Your task to perform on an android device: turn on improve location accuracy Image 0: 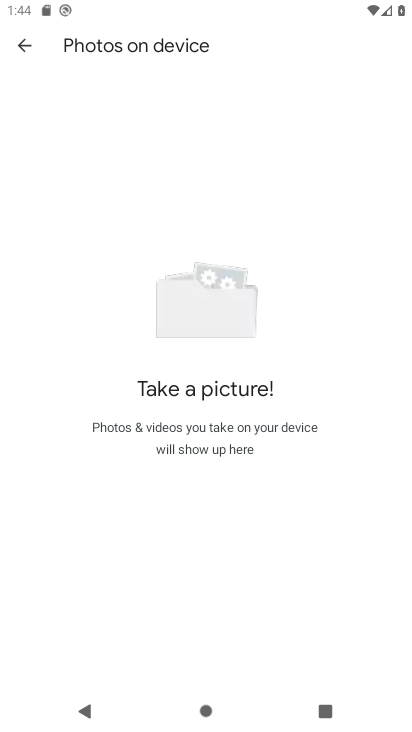
Step 0: press home button
Your task to perform on an android device: turn on improve location accuracy Image 1: 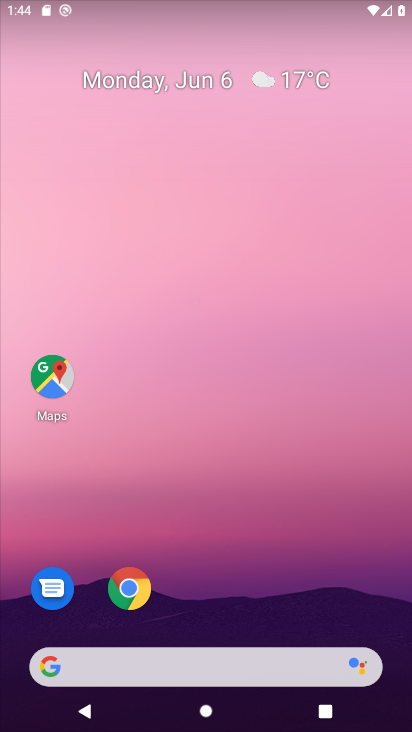
Step 1: drag from (265, 605) to (266, 115)
Your task to perform on an android device: turn on improve location accuracy Image 2: 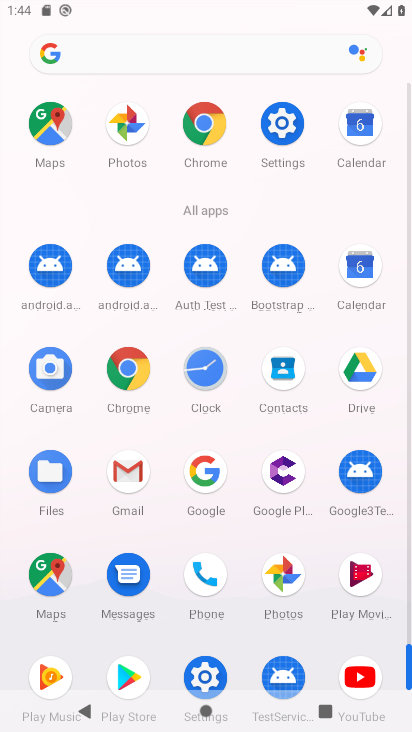
Step 2: click (280, 131)
Your task to perform on an android device: turn on improve location accuracy Image 3: 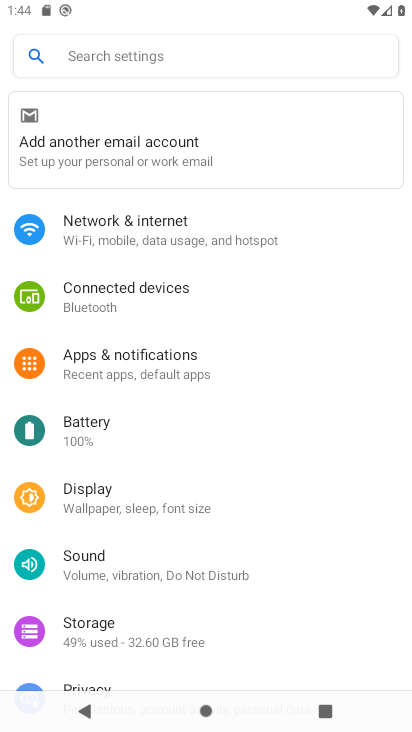
Step 3: drag from (113, 618) to (143, 480)
Your task to perform on an android device: turn on improve location accuracy Image 4: 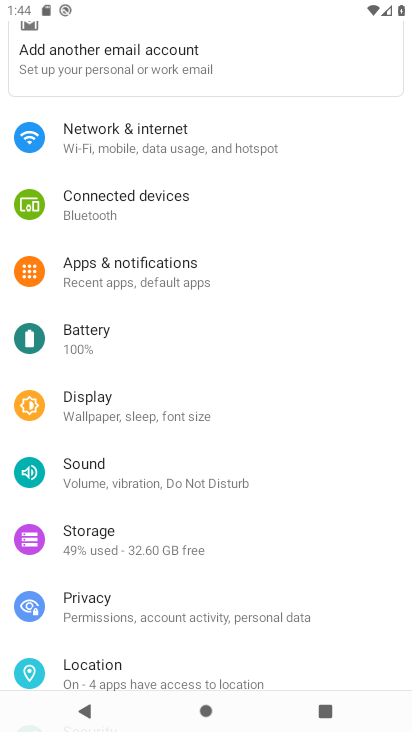
Step 4: click (122, 667)
Your task to perform on an android device: turn on improve location accuracy Image 5: 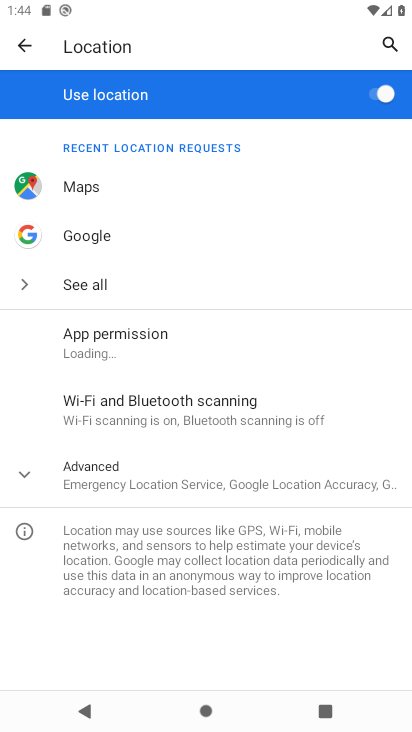
Step 5: click (89, 482)
Your task to perform on an android device: turn on improve location accuracy Image 6: 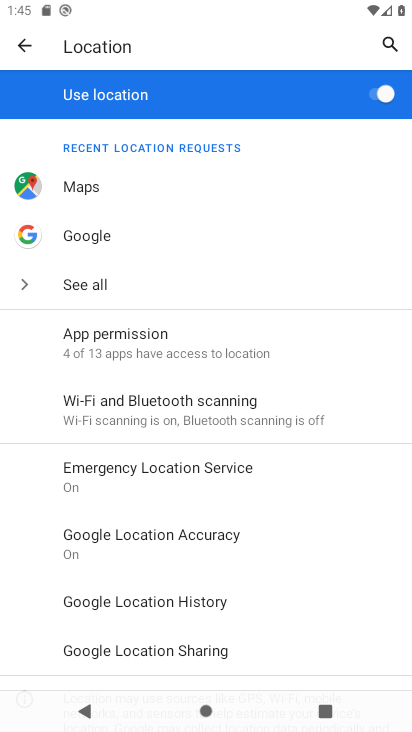
Step 6: click (164, 543)
Your task to perform on an android device: turn on improve location accuracy Image 7: 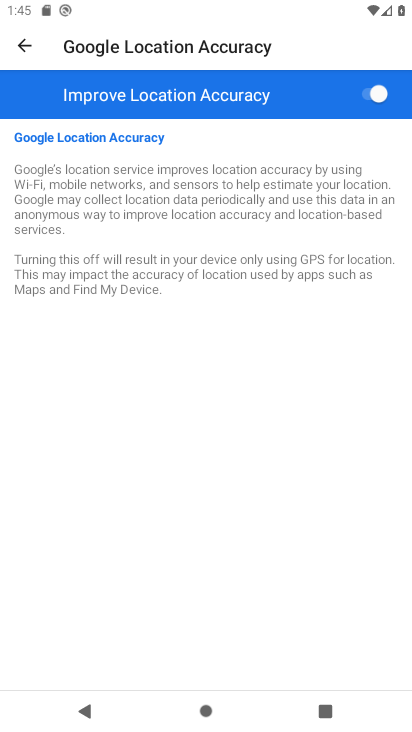
Step 7: task complete